Your task to perform on an android device: Open Google Maps and go to "Timeline" Image 0: 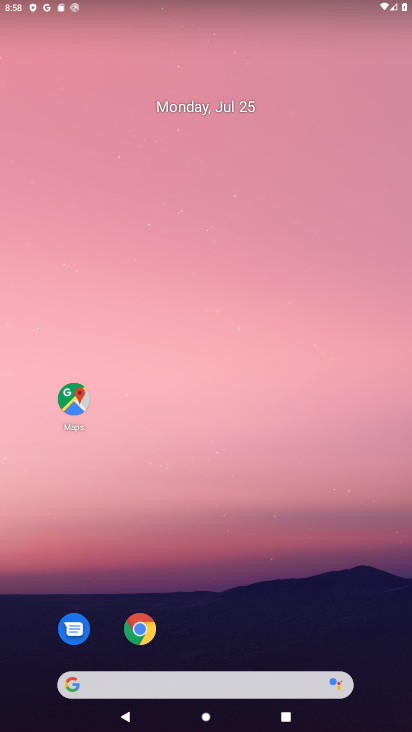
Step 0: click (71, 408)
Your task to perform on an android device: Open Google Maps and go to "Timeline" Image 1: 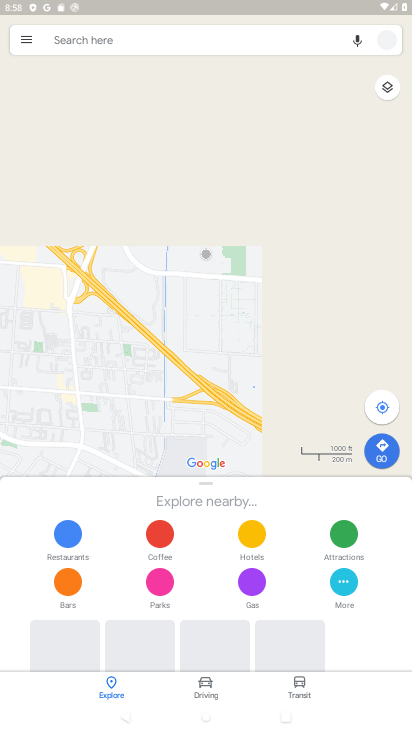
Step 1: click (32, 35)
Your task to perform on an android device: Open Google Maps and go to "Timeline" Image 2: 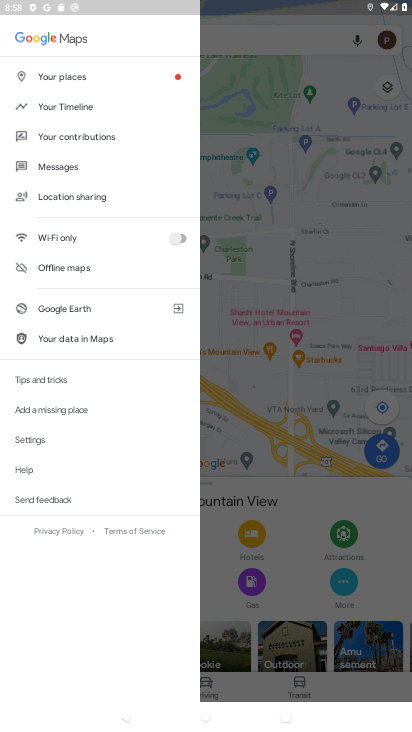
Step 2: click (67, 108)
Your task to perform on an android device: Open Google Maps and go to "Timeline" Image 3: 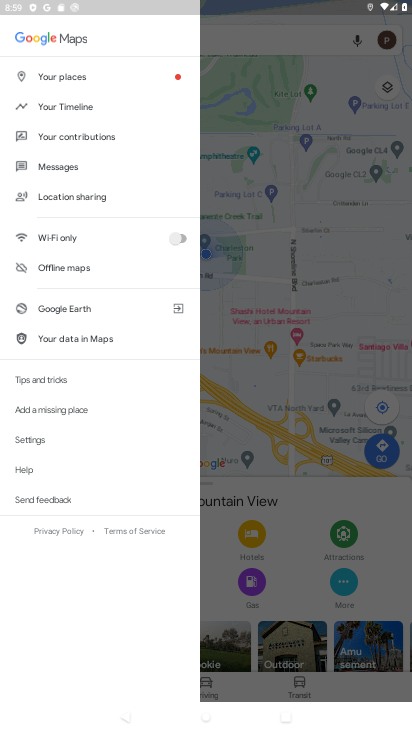
Step 3: click (103, 109)
Your task to perform on an android device: Open Google Maps and go to "Timeline" Image 4: 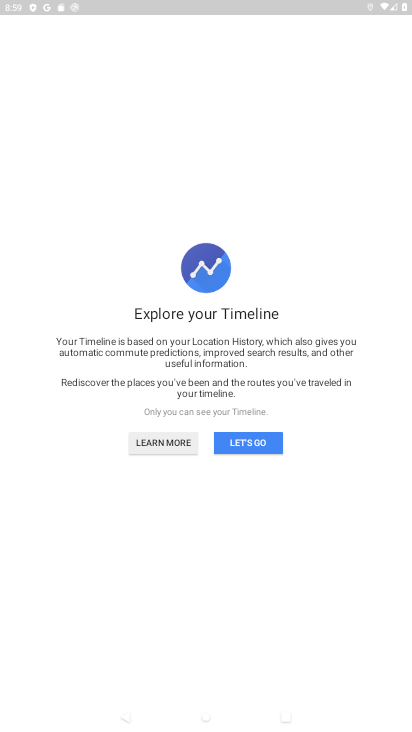
Step 4: click (241, 442)
Your task to perform on an android device: Open Google Maps and go to "Timeline" Image 5: 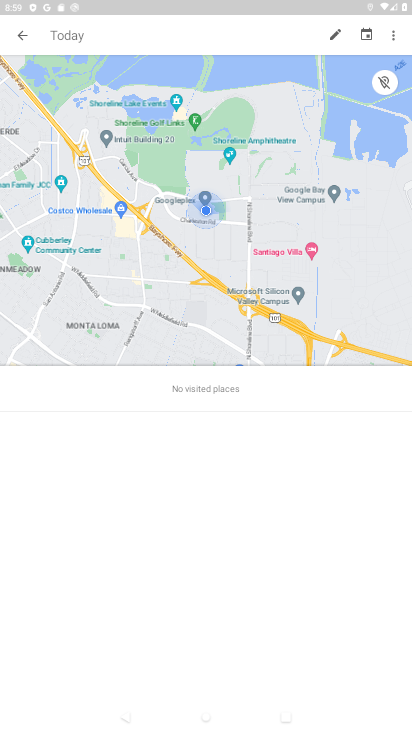
Step 5: task complete